Your task to perform on an android device: Find coffee shops on Maps Image 0: 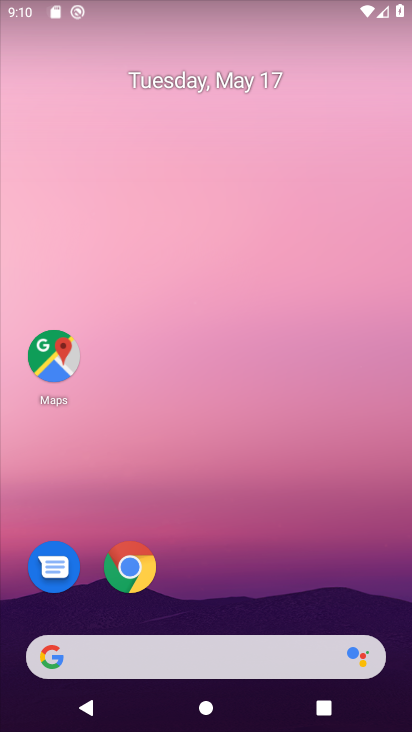
Step 0: click (48, 360)
Your task to perform on an android device: Find coffee shops on Maps Image 1: 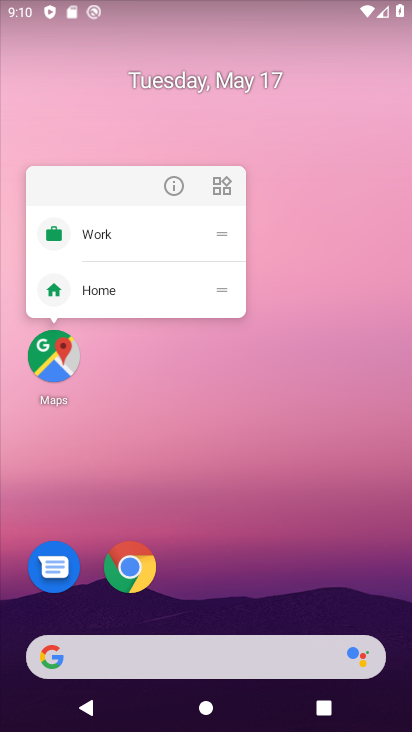
Step 1: click (48, 369)
Your task to perform on an android device: Find coffee shops on Maps Image 2: 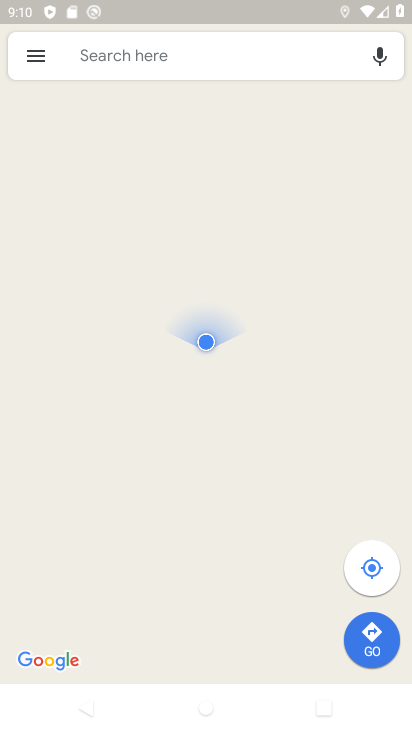
Step 2: click (192, 72)
Your task to perform on an android device: Find coffee shops on Maps Image 3: 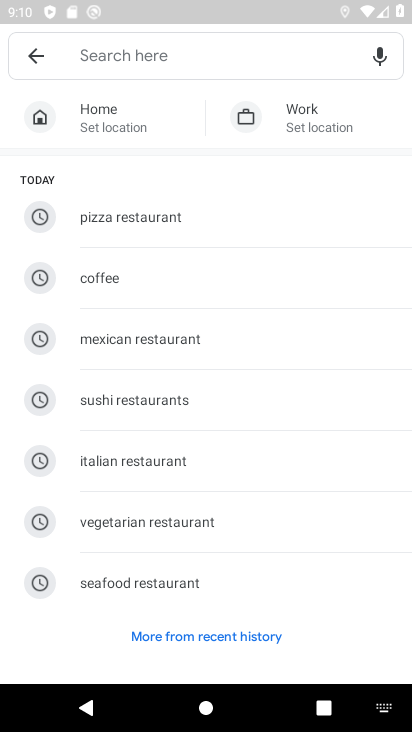
Step 3: type "Coffee shops"
Your task to perform on an android device: Find coffee shops on Maps Image 4: 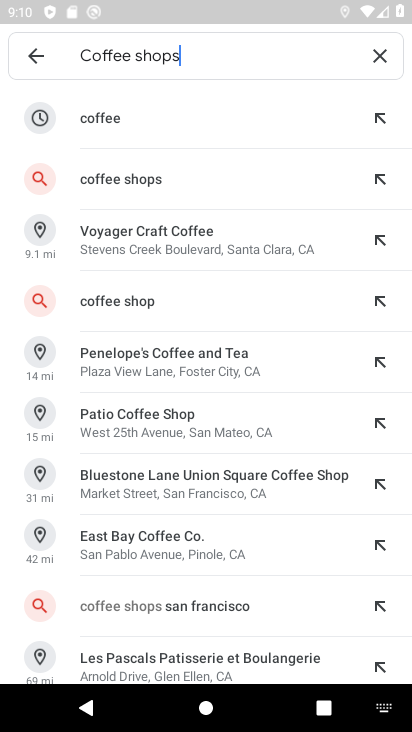
Step 4: click (232, 167)
Your task to perform on an android device: Find coffee shops on Maps Image 5: 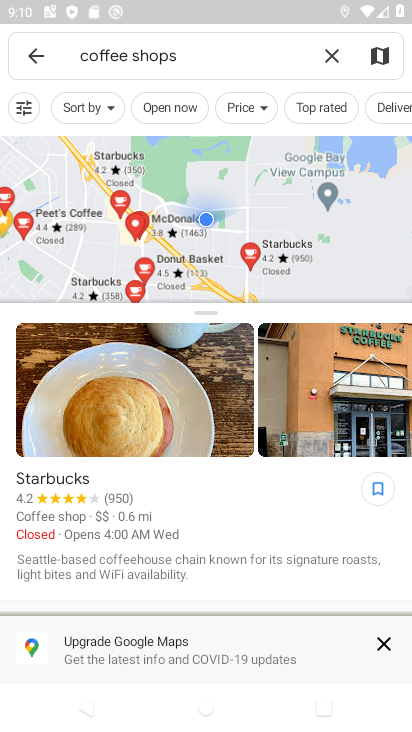
Step 5: click (391, 645)
Your task to perform on an android device: Find coffee shops on Maps Image 6: 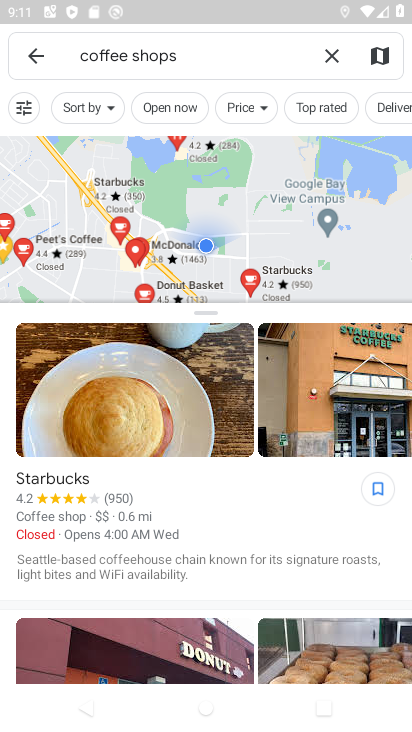
Step 6: task complete